Your task to perform on an android device: empty trash in google photos Image 0: 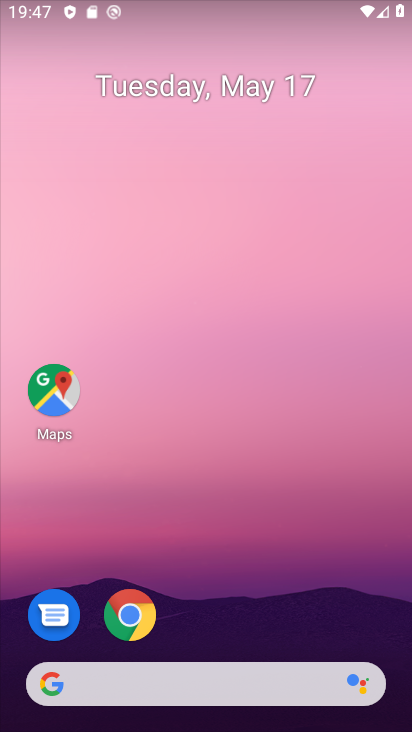
Step 0: drag from (273, 511) to (385, 63)
Your task to perform on an android device: empty trash in google photos Image 1: 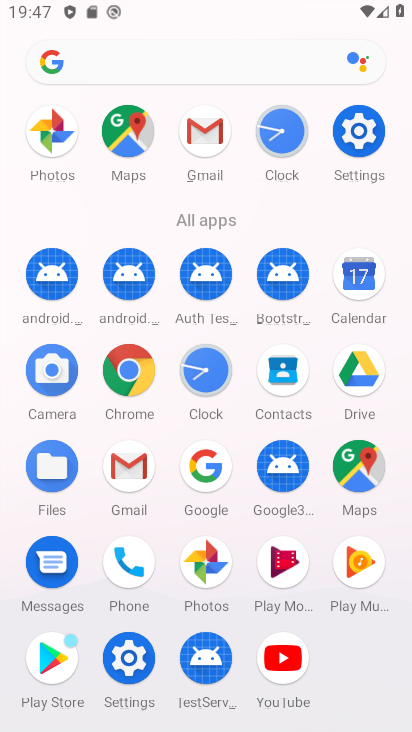
Step 1: click (208, 559)
Your task to perform on an android device: empty trash in google photos Image 2: 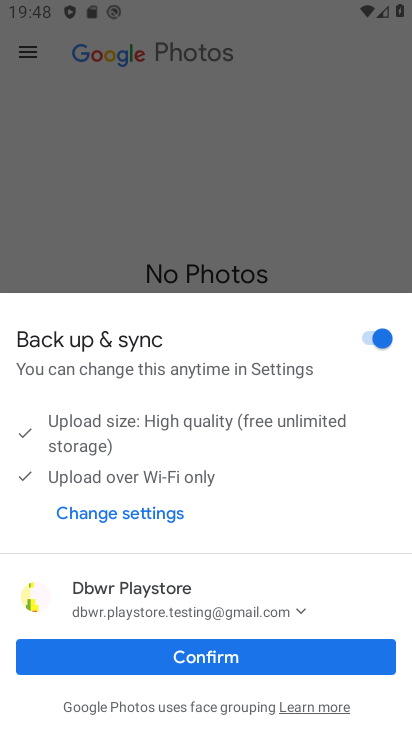
Step 2: click (204, 664)
Your task to perform on an android device: empty trash in google photos Image 3: 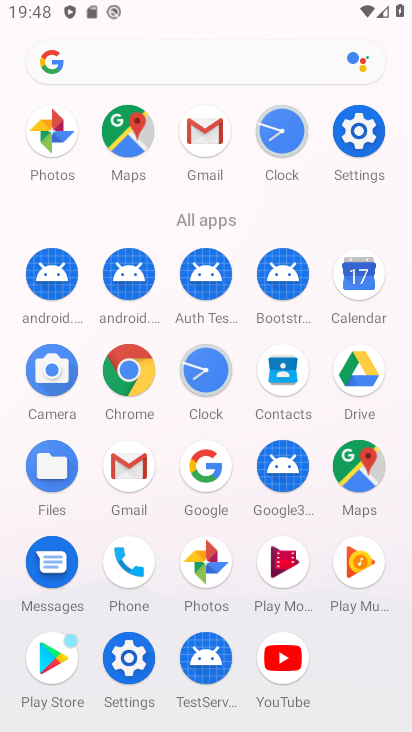
Step 3: click (199, 552)
Your task to perform on an android device: empty trash in google photos Image 4: 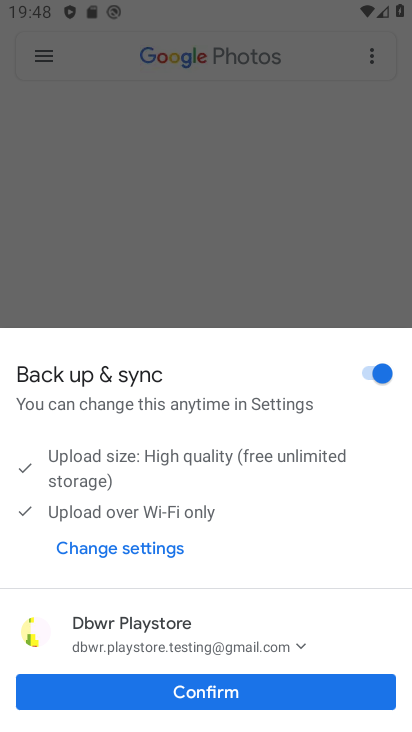
Step 4: click (167, 689)
Your task to perform on an android device: empty trash in google photos Image 5: 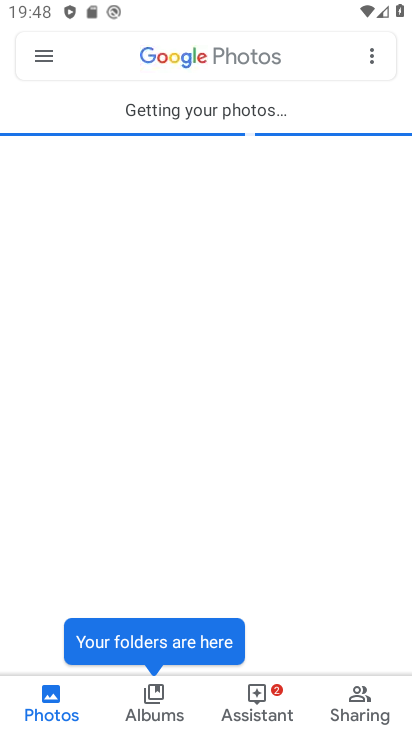
Step 5: click (37, 52)
Your task to perform on an android device: empty trash in google photos Image 6: 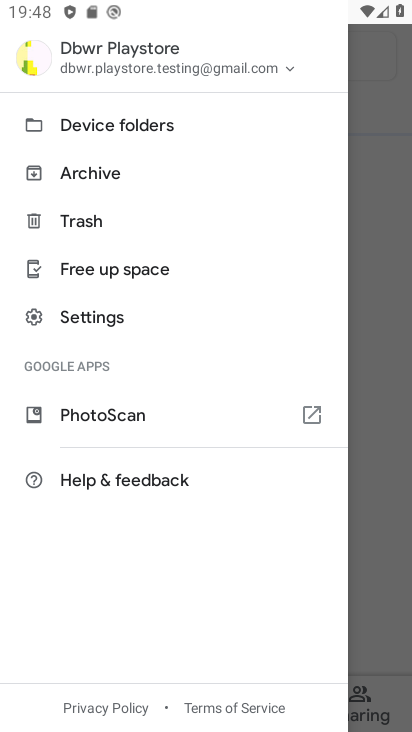
Step 6: click (90, 218)
Your task to perform on an android device: empty trash in google photos Image 7: 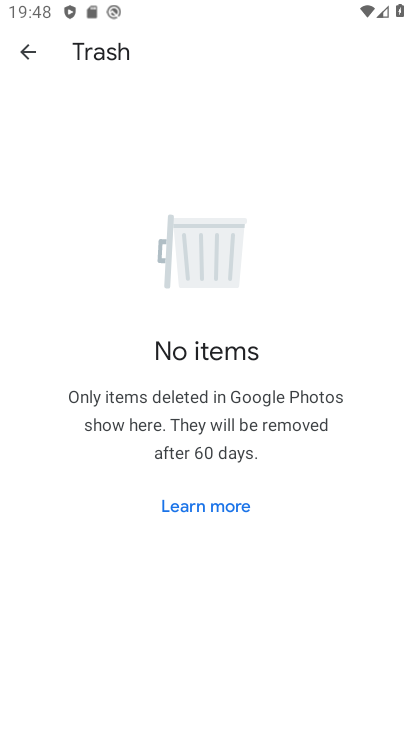
Step 7: task complete